Your task to perform on an android device: Is it going to rain tomorrow? Image 0: 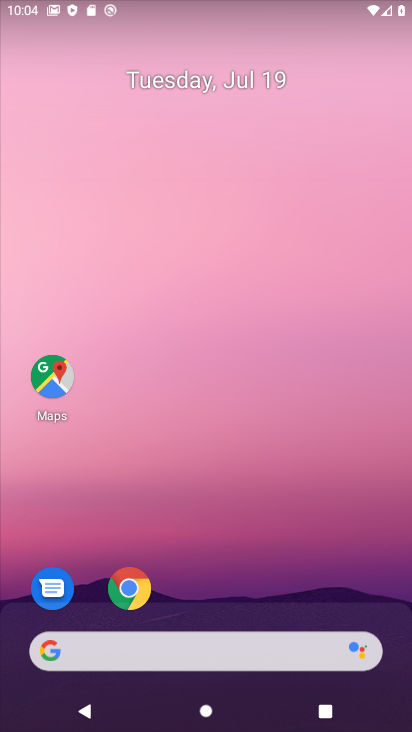
Step 0: click (152, 670)
Your task to perform on an android device: Is it going to rain tomorrow? Image 1: 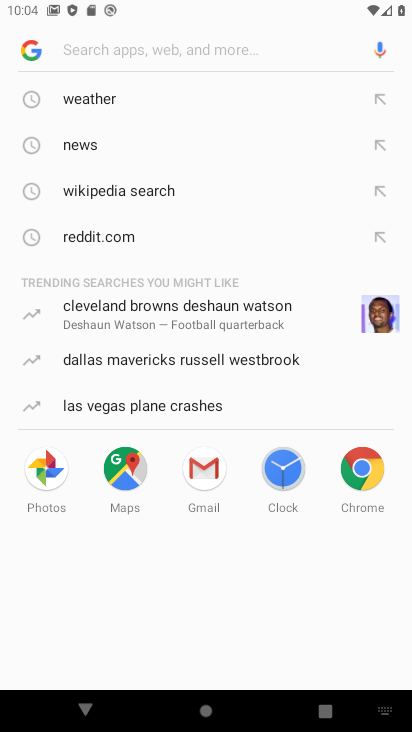
Step 1: type "Is it going to rain tomorrow?"
Your task to perform on an android device: Is it going to rain tomorrow? Image 2: 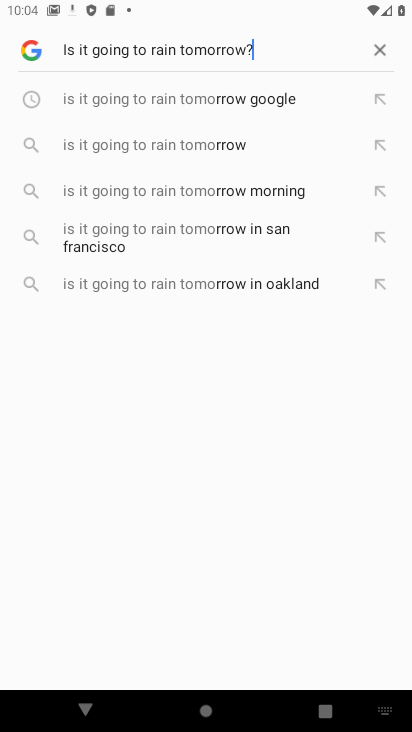
Step 2: type ""
Your task to perform on an android device: Is it going to rain tomorrow? Image 3: 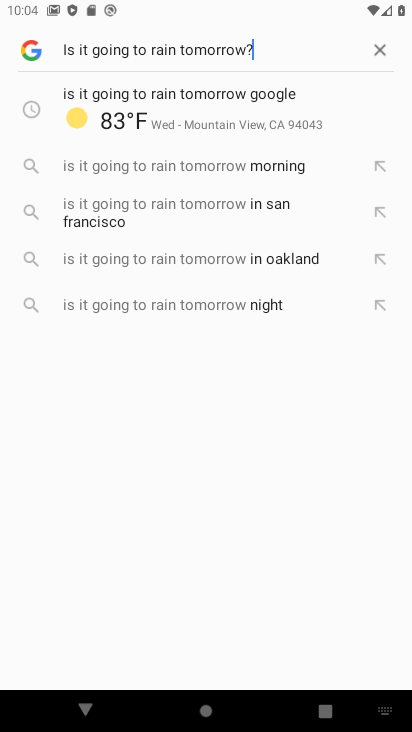
Step 3: press enter
Your task to perform on an android device: Is it going to rain tomorrow? Image 4: 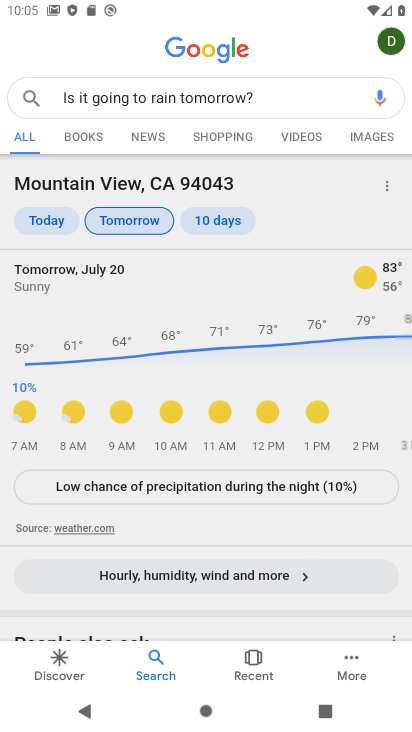
Step 4: task complete